Your task to perform on an android device: choose inbox layout in the gmail app Image 0: 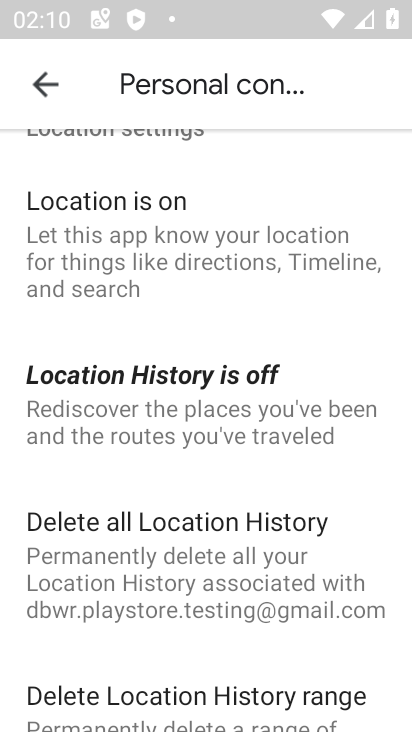
Step 0: press home button
Your task to perform on an android device: choose inbox layout in the gmail app Image 1: 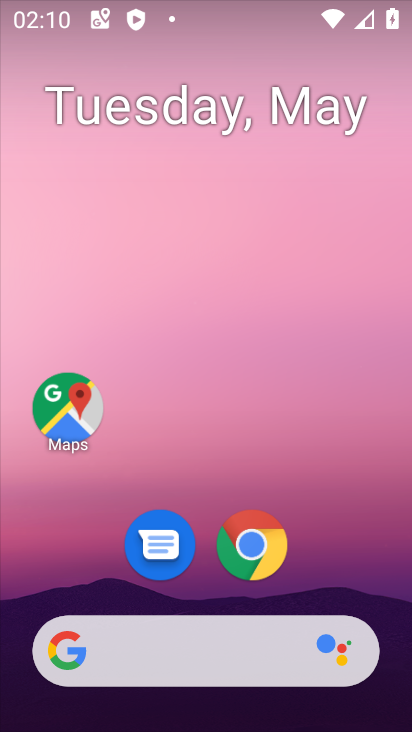
Step 1: drag from (394, 619) to (309, 103)
Your task to perform on an android device: choose inbox layout in the gmail app Image 2: 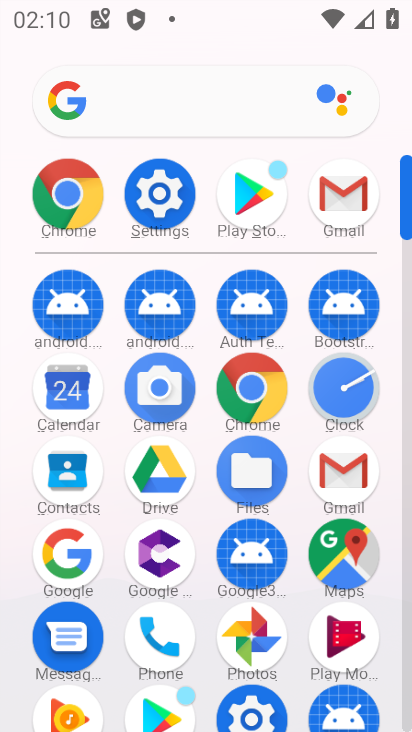
Step 2: click (342, 467)
Your task to perform on an android device: choose inbox layout in the gmail app Image 3: 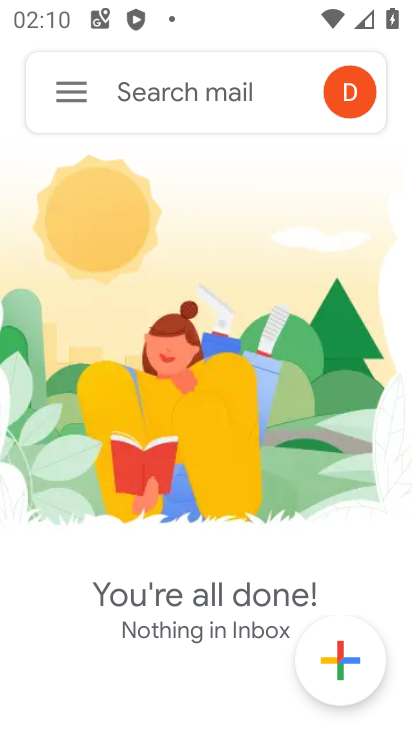
Step 3: click (68, 88)
Your task to perform on an android device: choose inbox layout in the gmail app Image 4: 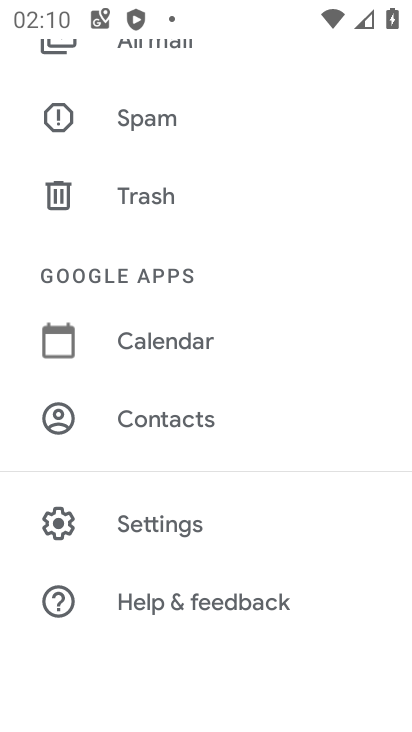
Step 4: click (157, 534)
Your task to perform on an android device: choose inbox layout in the gmail app Image 5: 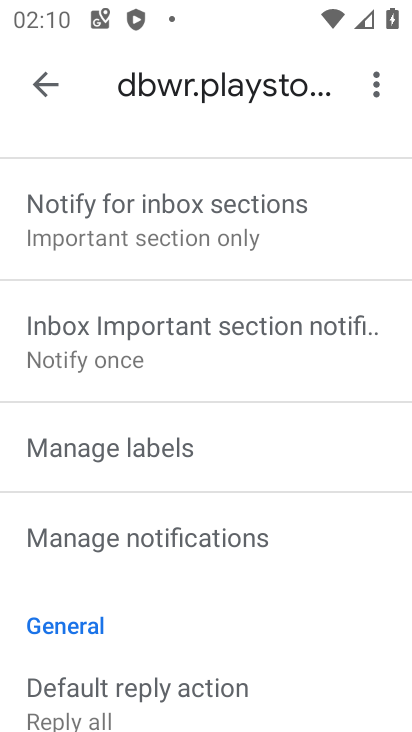
Step 5: click (326, 493)
Your task to perform on an android device: choose inbox layout in the gmail app Image 6: 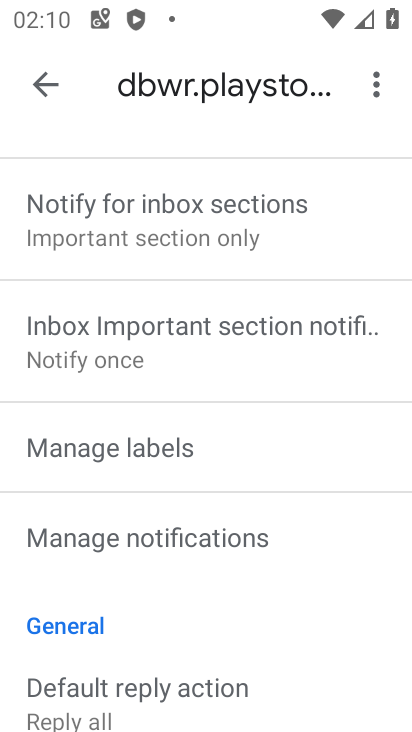
Step 6: drag from (341, 235) to (314, 568)
Your task to perform on an android device: choose inbox layout in the gmail app Image 7: 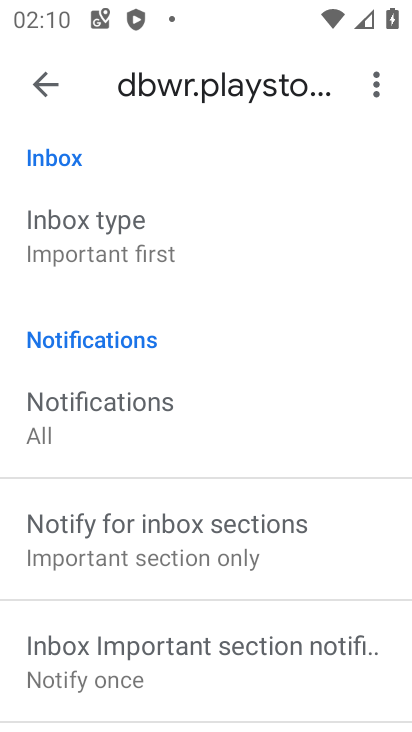
Step 7: click (110, 245)
Your task to perform on an android device: choose inbox layout in the gmail app Image 8: 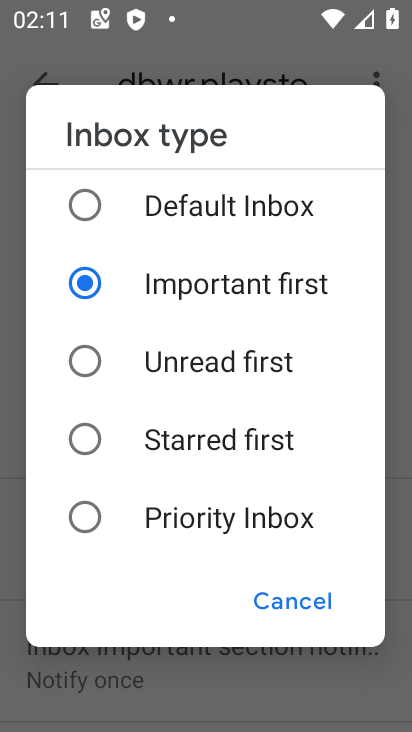
Step 8: click (79, 202)
Your task to perform on an android device: choose inbox layout in the gmail app Image 9: 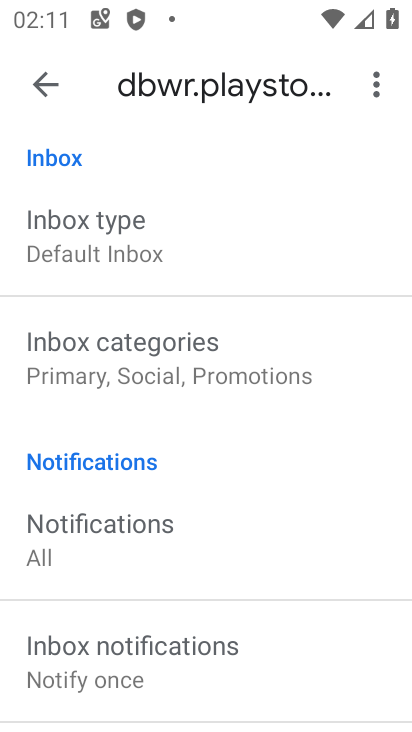
Step 9: task complete